Your task to perform on an android device: See recent photos Image 0: 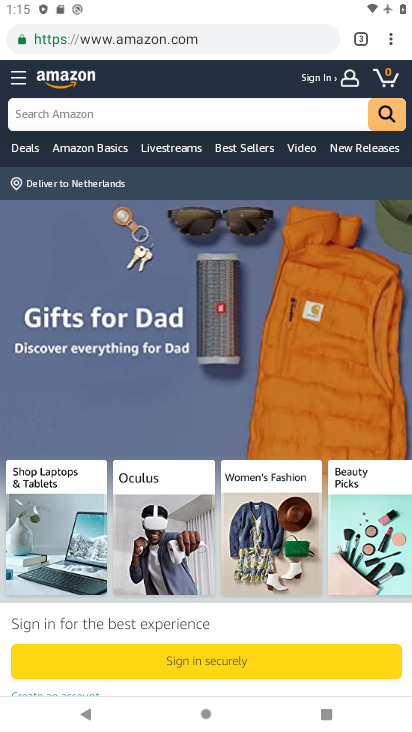
Step 0: press home button
Your task to perform on an android device: See recent photos Image 1: 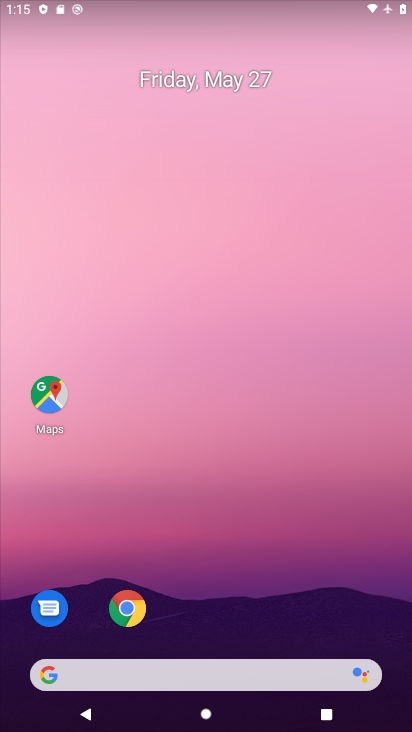
Step 1: drag from (177, 679) to (305, 142)
Your task to perform on an android device: See recent photos Image 2: 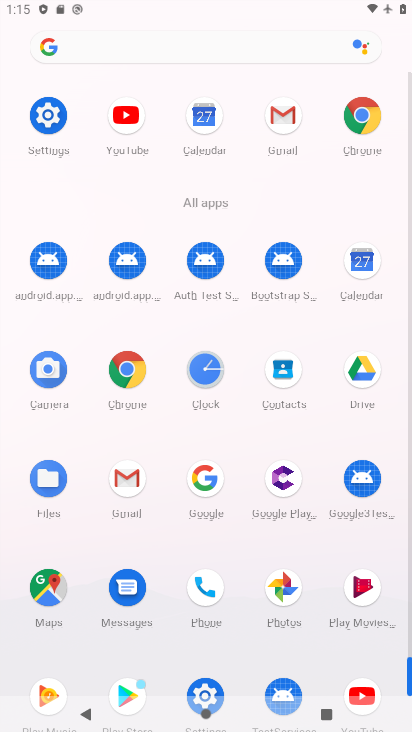
Step 2: click (282, 583)
Your task to perform on an android device: See recent photos Image 3: 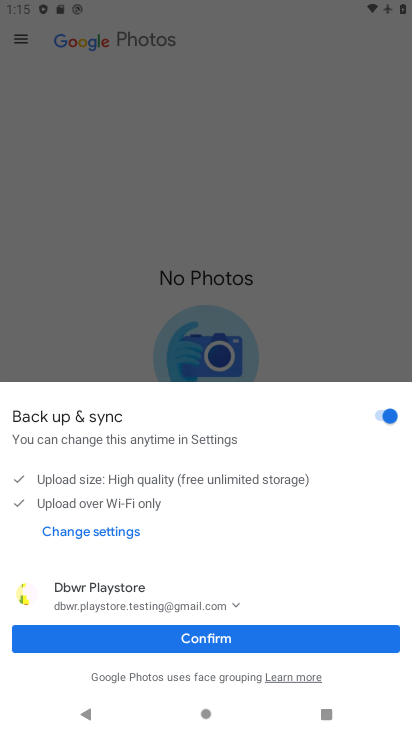
Step 3: click (199, 637)
Your task to perform on an android device: See recent photos Image 4: 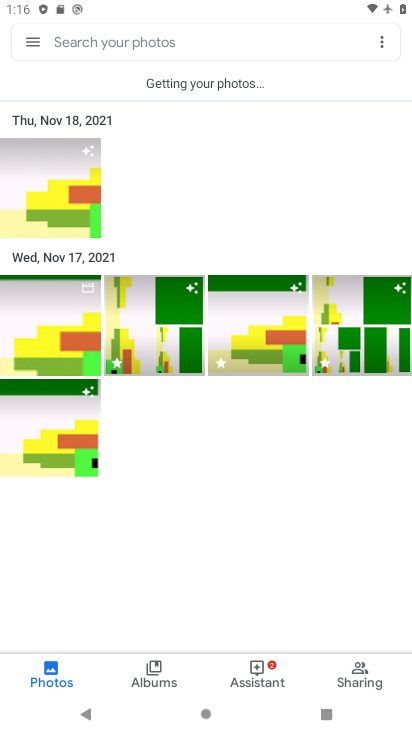
Step 4: click (153, 677)
Your task to perform on an android device: See recent photos Image 5: 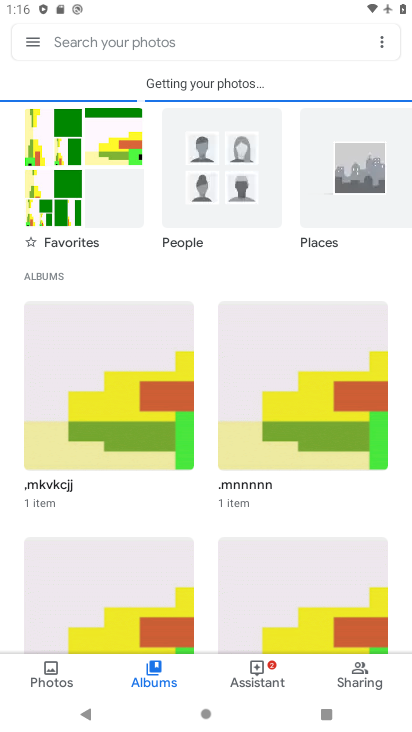
Step 5: task complete